Your task to perform on an android device: open a new tab in the chrome app Image 0: 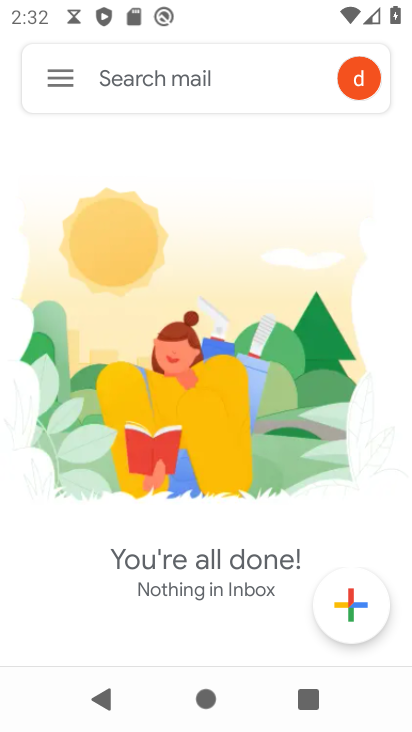
Step 0: press home button
Your task to perform on an android device: open a new tab in the chrome app Image 1: 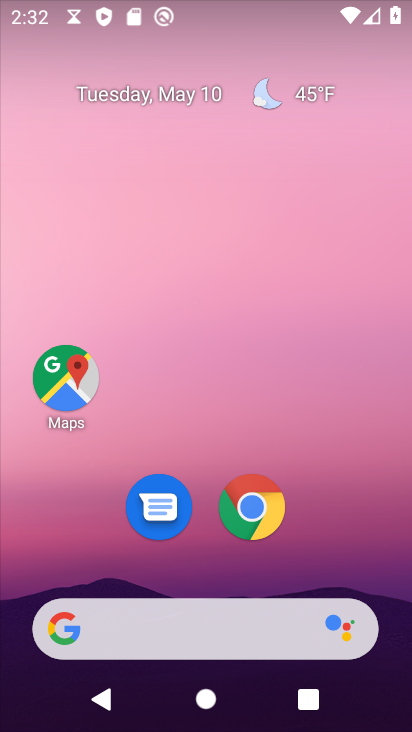
Step 1: click (264, 499)
Your task to perform on an android device: open a new tab in the chrome app Image 2: 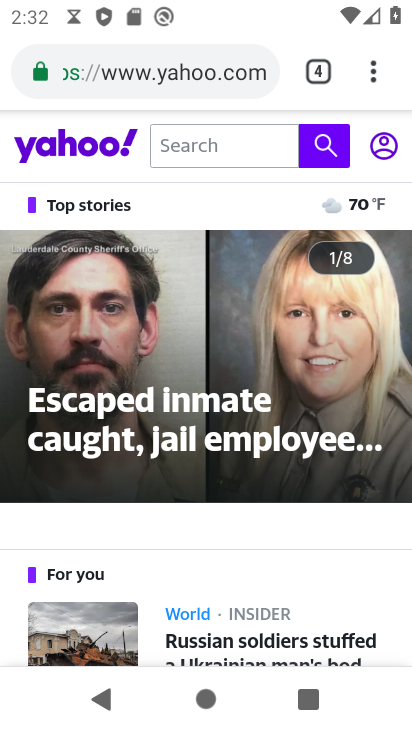
Step 2: drag from (375, 76) to (111, 144)
Your task to perform on an android device: open a new tab in the chrome app Image 3: 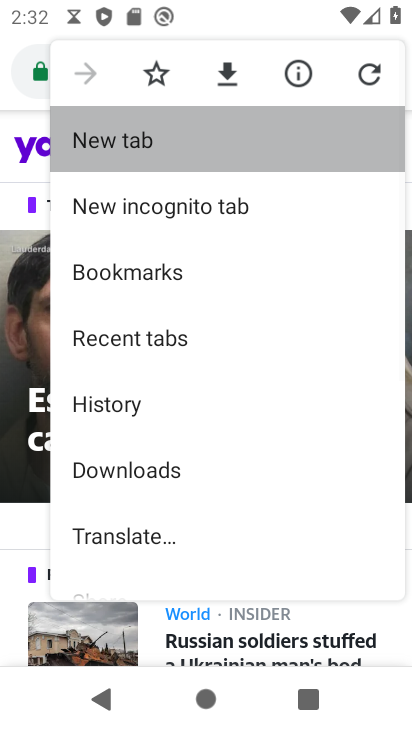
Step 3: click (107, 141)
Your task to perform on an android device: open a new tab in the chrome app Image 4: 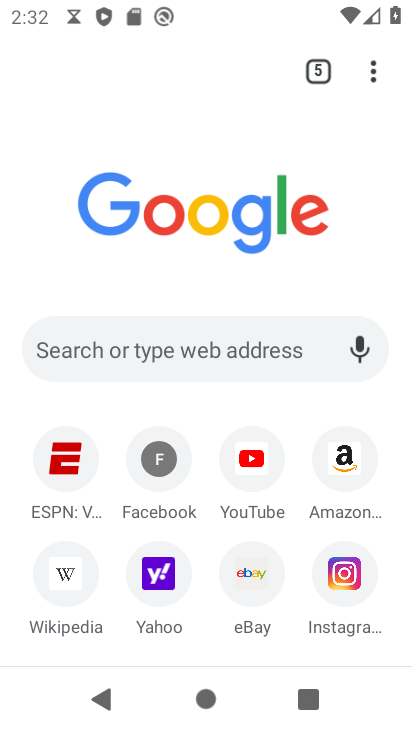
Step 4: task complete